Your task to perform on an android device: toggle wifi Image 0: 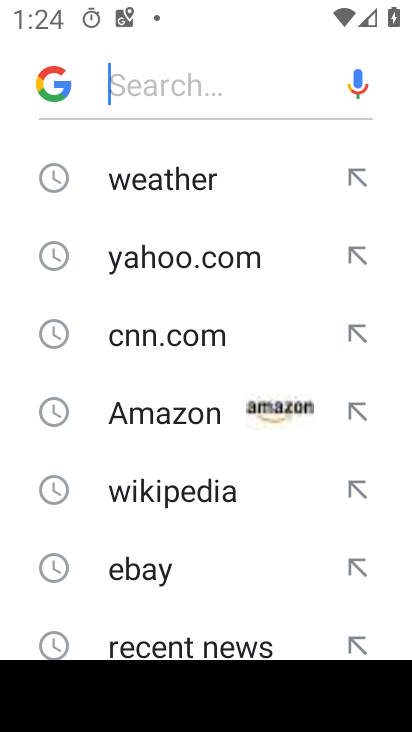
Step 0: press home button
Your task to perform on an android device: toggle wifi Image 1: 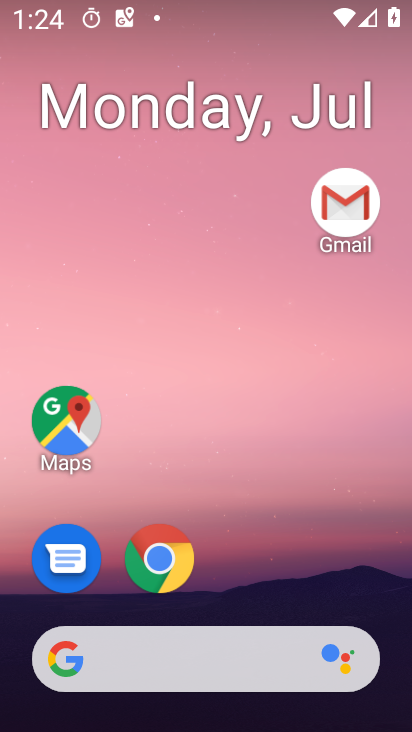
Step 1: drag from (324, 568) to (333, 78)
Your task to perform on an android device: toggle wifi Image 2: 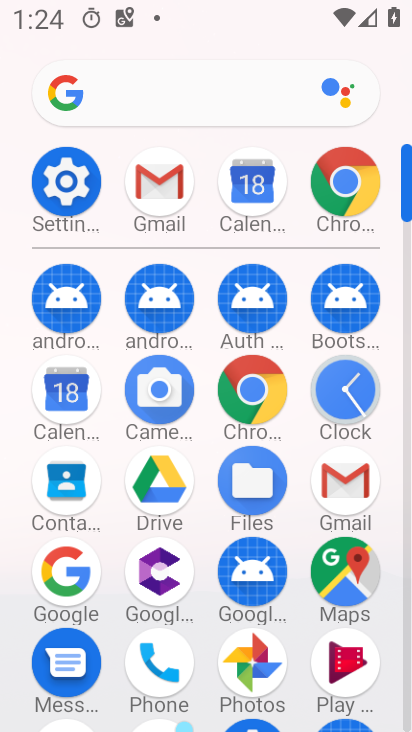
Step 2: click (75, 196)
Your task to perform on an android device: toggle wifi Image 3: 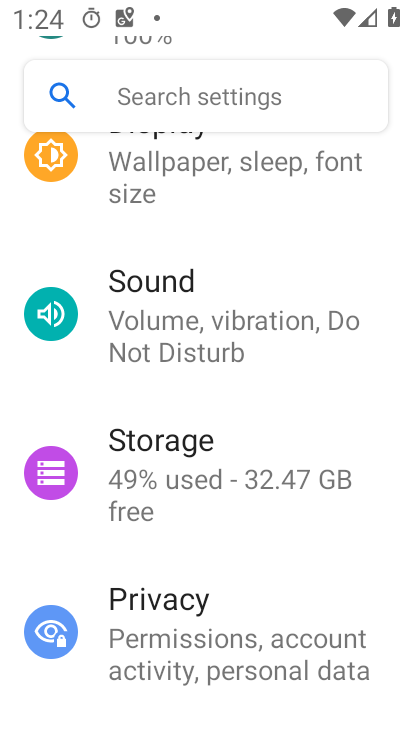
Step 3: drag from (350, 266) to (359, 345)
Your task to perform on an android device: toggle wifi Image 4: 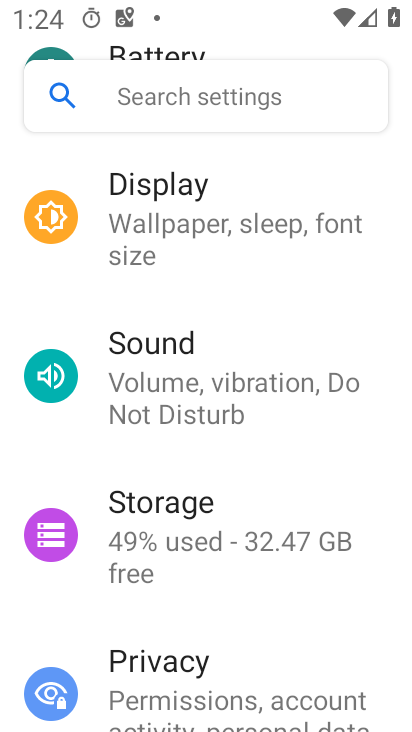
Step 4: drag from (371, 277) to (371, 362)
Your task to perform on an android device: toggle wifi Image 5: 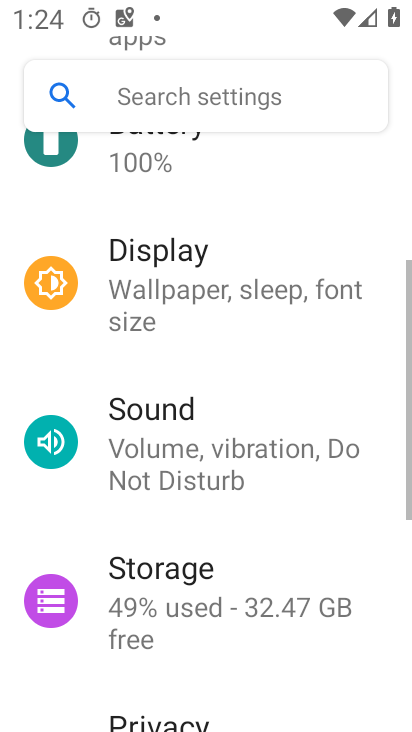
Step 5: drag from (373, 255) to (373, 372)
Your task to perform on an android device: toggle wifi Image 6: 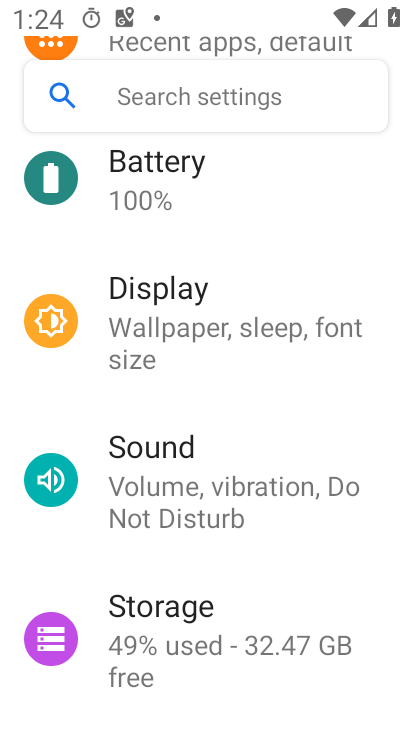
Step 6: drag from (373, 296) to (373, 380)
Your task to perform on an android device: toggle wifi Image 7: 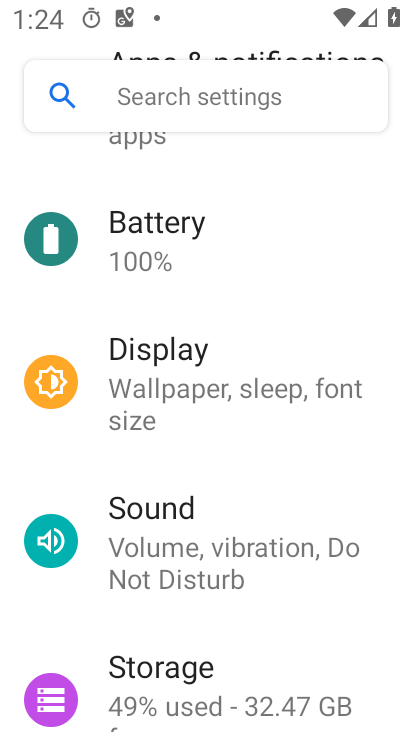
Step 7: drag from (361, 221) to (363, 314)
Your task to perform on an android device: toggle wifi Image 8: 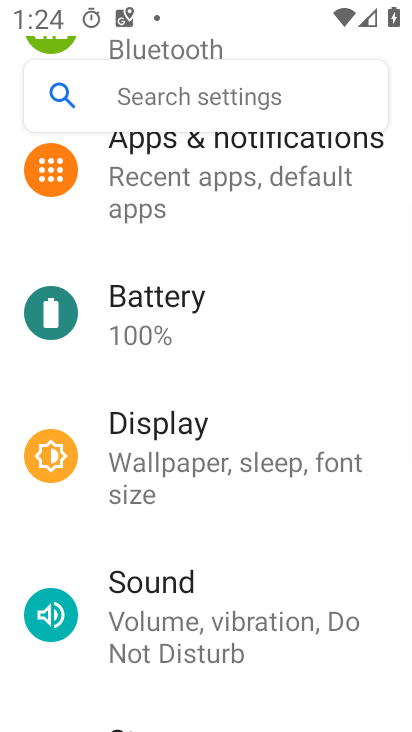
Step 8: drag from (365, 205) to (367, 306)
Your task to perform on an android device: toggle wifi Image 9: 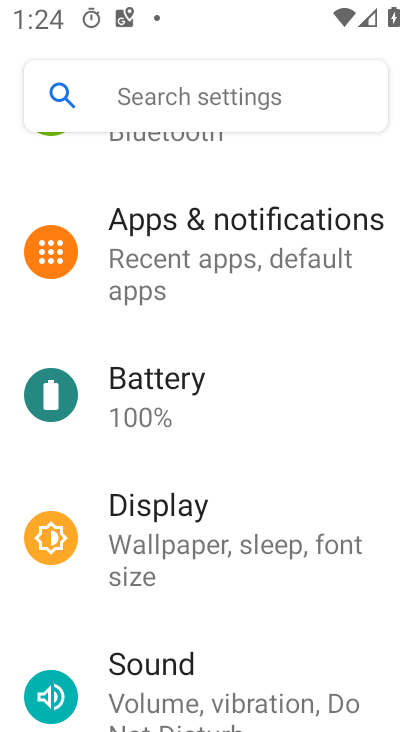
Step 9: drag from (379, 202) to (379, 290)
Your task to perform on an android device: toggle wifi Image 10: 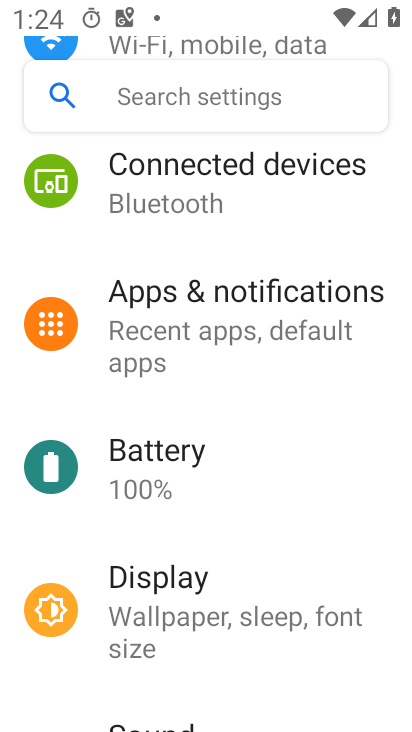
Step 10: drag from (374, 221) to (367, 317)
Your task to perform on an android device: toggle wifi Image 11: 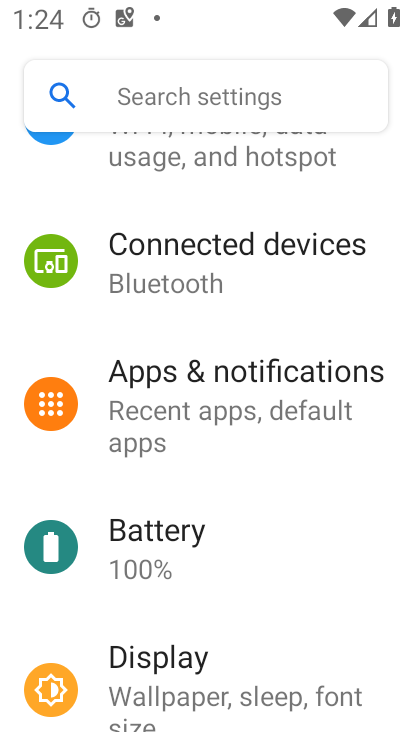
Step 11: drag from (363, 199) to (363, 321)
Your task to perform on an android device: toggle wifi Image 12: 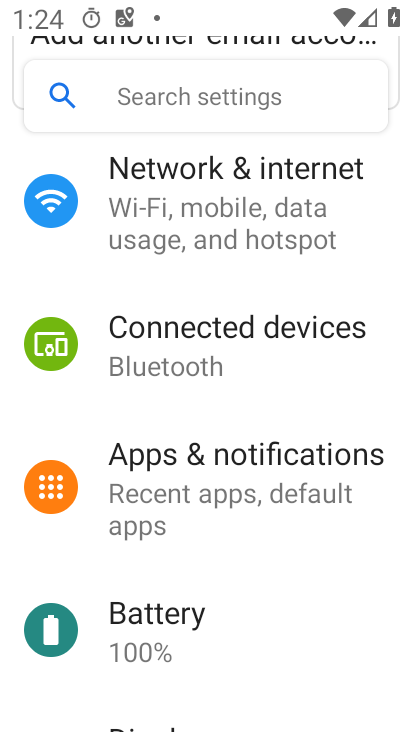
Step 12: drag from (357, 215) to (360, 329)
Your task to perform on an android device: toggle wifi Image 13: 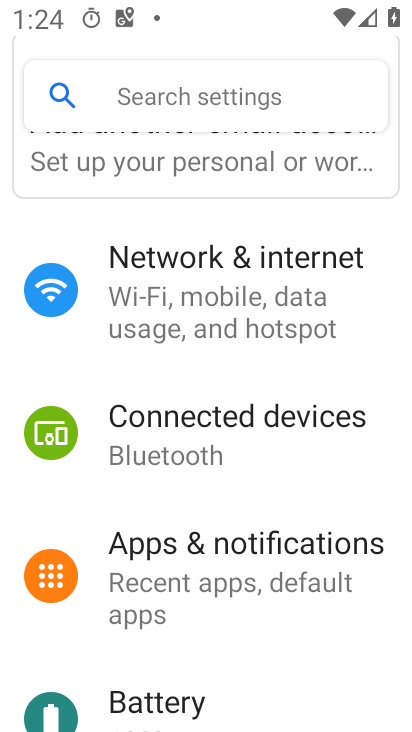
Step 13: click (291, 322)
Your task to perform on an android device: toggle wifi Image 14: 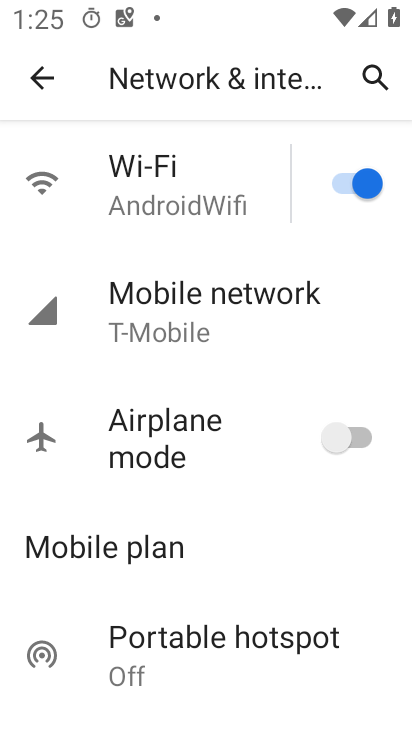
Step 14: click (370, 191)
Your task to perform on an android device: toggle wifi Image 15: 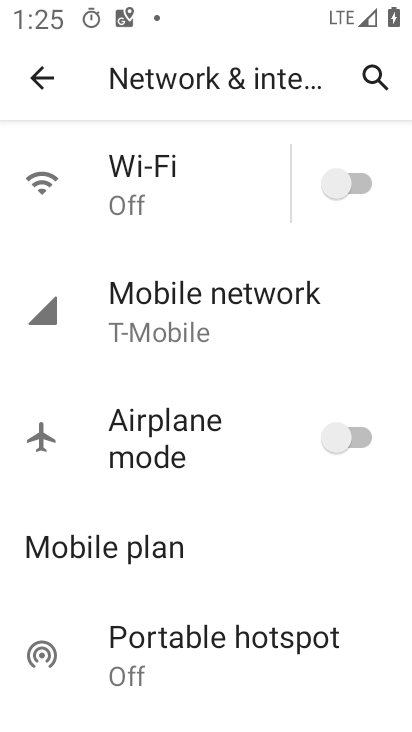
Step 15: task complete